Your task to perform on an android device: move a message to another label in the gmail app Image 0: 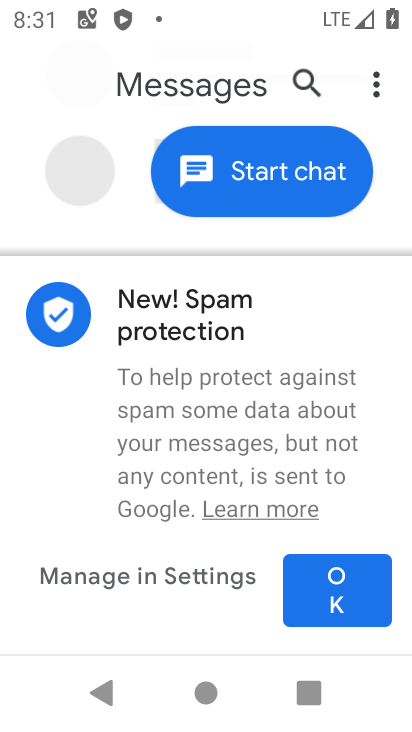
Step 0: press home button
Your task to perform on an android device: move a message to another label in the gmail app Image 1: 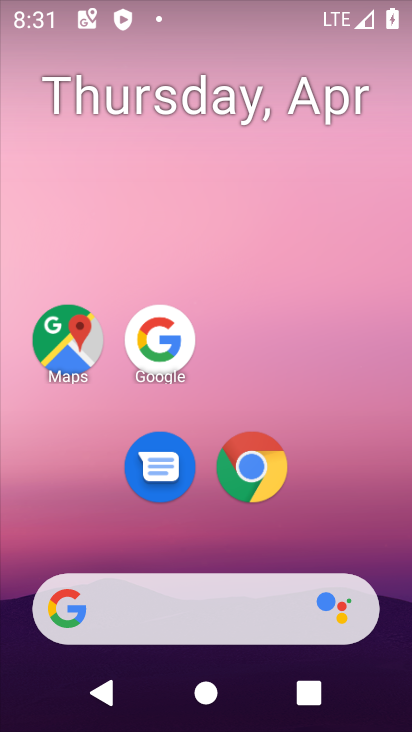
Step 1: drag from (184, 589) to (141, 2)
Your task to perform on an android device: move a message to another label in the gmail app Image 2: 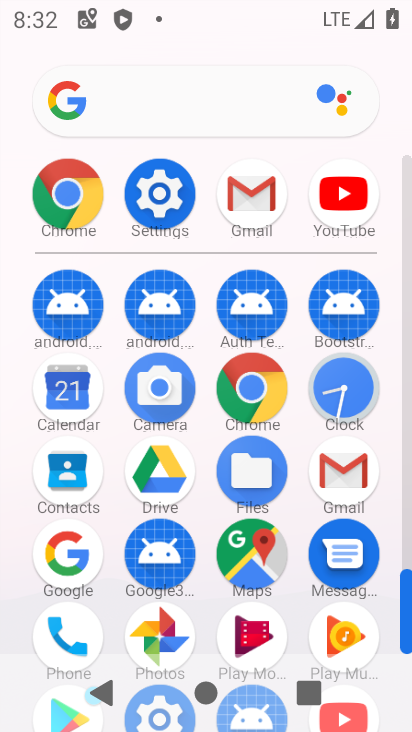
Step 2: click (272, 187)
Your task to perform on an android device: move a message to another label in the gmail app Image 3: 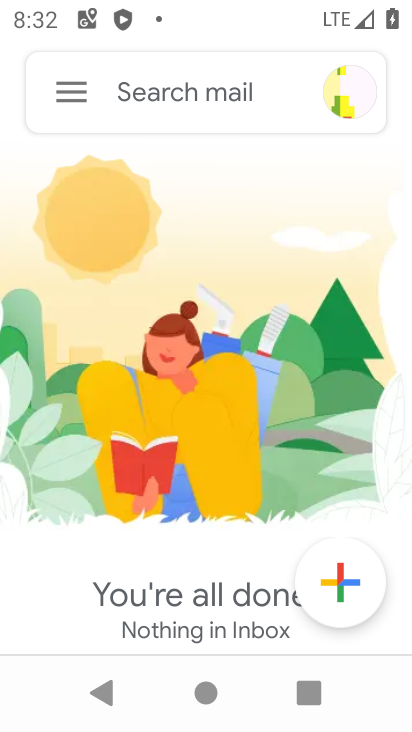
Step 3: click (52, 99)
Your task to perform on an android device: move a message to another label in the gmail app Image 4: 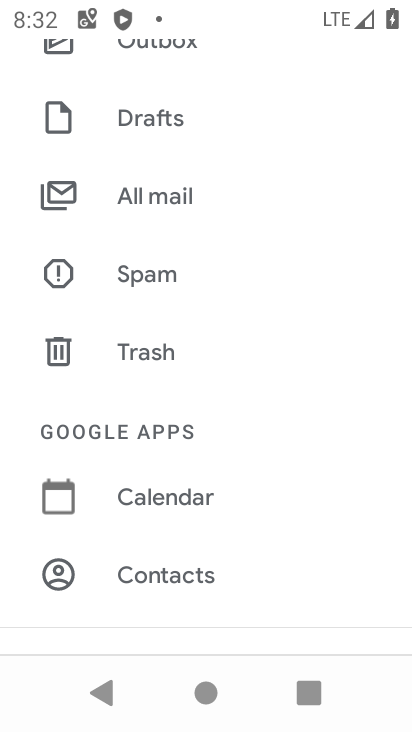
Step 4: click (171, 204)
Your task to perform on an android device: move a message to another label in the gmail app Image 5: 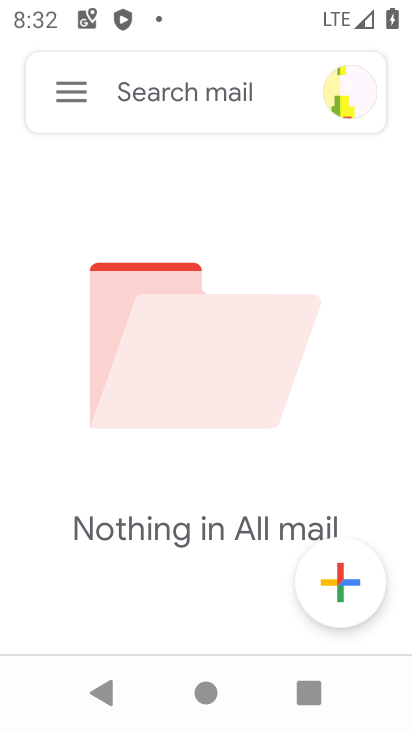
Step 5: task complete